Your task to perform on an android device: Open calendar and show me the third week of next month Image 0: 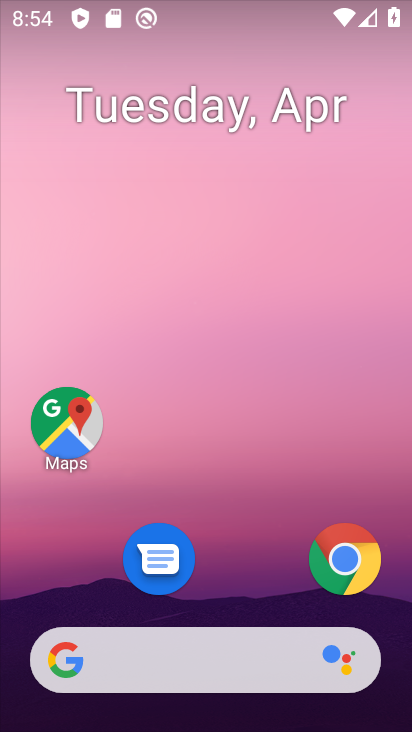
Step 0: drag from (259, 704) to (254, 65)
Your task to perform on an android device: Open calendar and show me the third week of next month Image 1: 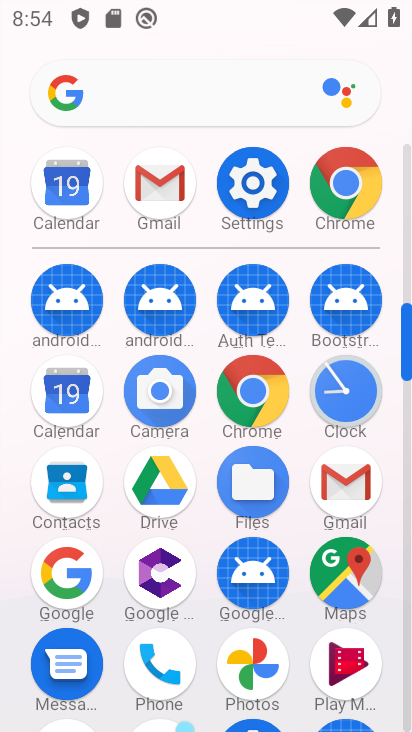
Step 1: click (62, 395)
Your task to perform on an android device: Open calendar and show me the third week of next month Image 2: 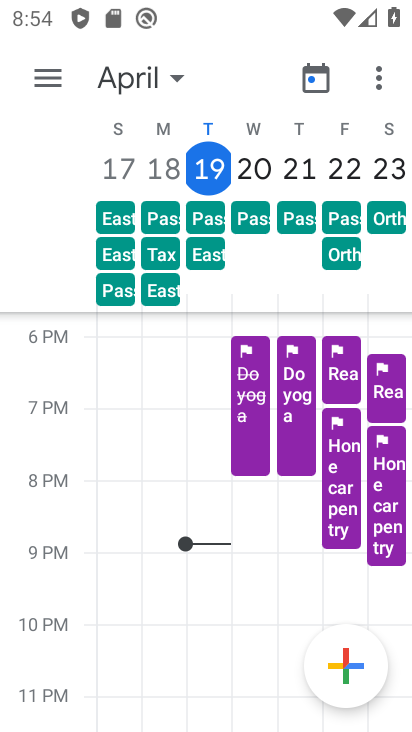
Step 2: click (316, 80)
Your task to perform on an android device: Open calendar and show me the third week of next month Image 3: 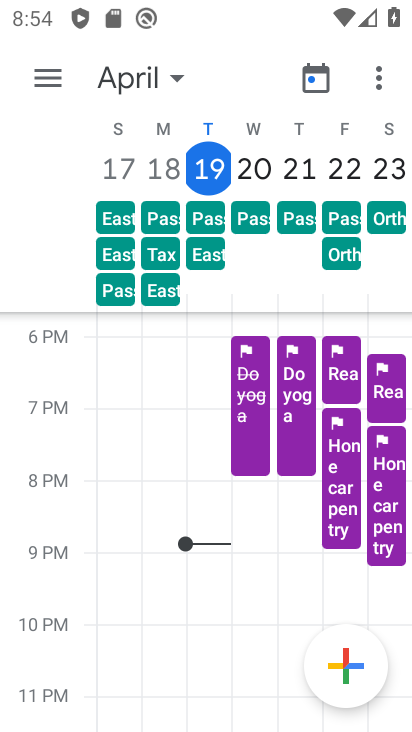
Step 3: click (44, 81)
Your task to perform on an android device: Open calendar and show me the third week of next month Image 4: 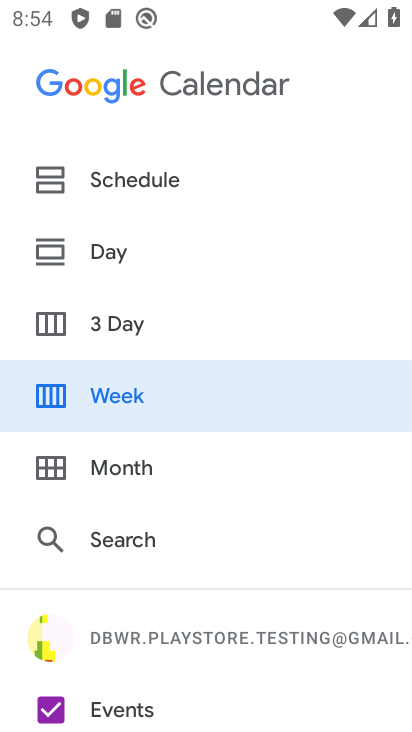
Step 4: click (135, 471)
Your task to perform on an android device: Open calendar and show me the third week of next month Image 5: 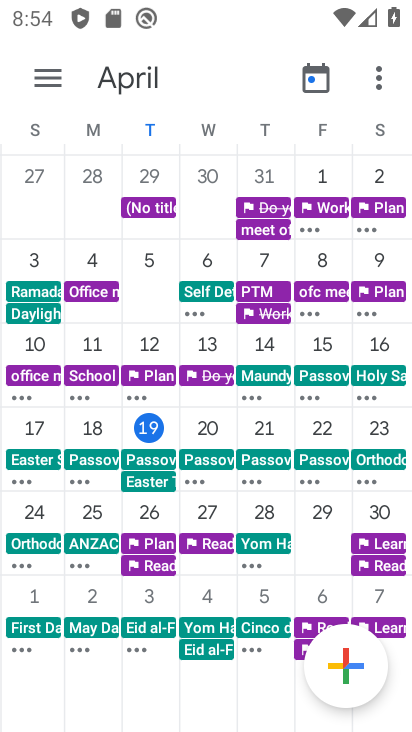
Step 5: drag from (380, 456) to (1, 478)
Your task to perform on an android device: Open calendar and show me the third week of next month Image 6: 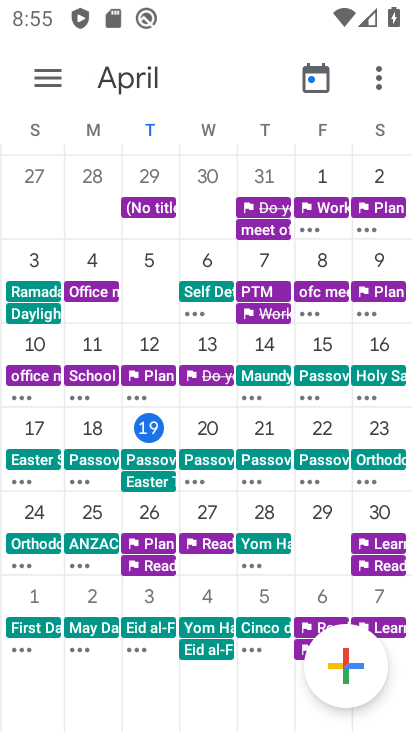
Step 6: drag from (399, 438) to (5, 333)
Your task to perform on an android device: Open calendar and show me the third week of next month Image 7: 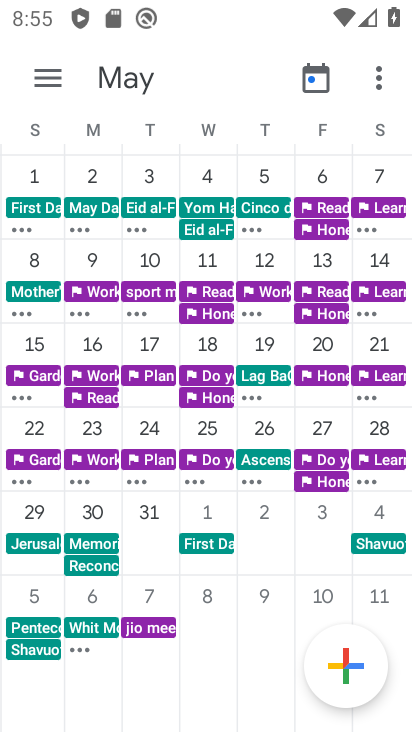
Step 7: click (90, 328)
Your task to perform on an android device: Open calendar and show me the third week of next month Image 8: 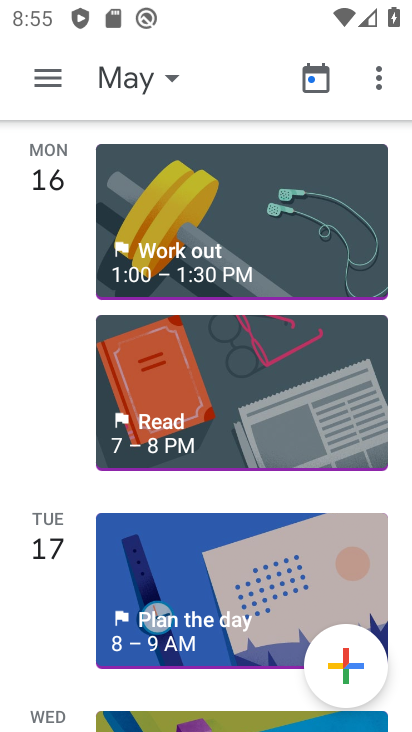
Step 8: task complete